Your task to perform on an android device: turn on location history Image 0: 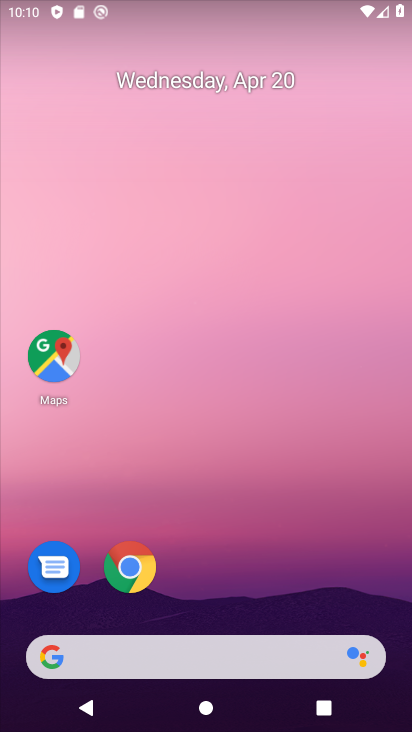
Step 0: drag from (234, 580) to (286, 68)
Your task to perform on an android device: turn on location history Image 1: 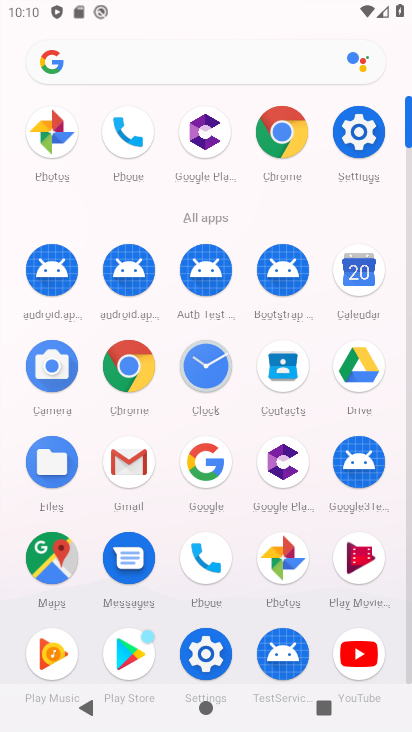
Step 1: click (361, 131)
Your task to perform on an android device: turn on location history Image 2: 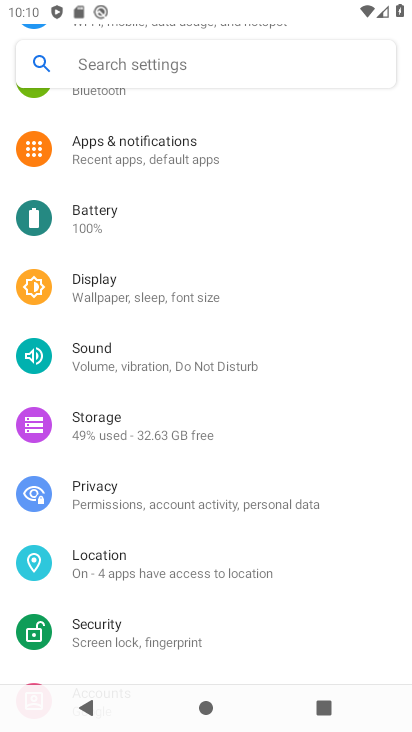
Step 2: click (147, 573)
Your task to perform on an android device: turn on location history Image 3: 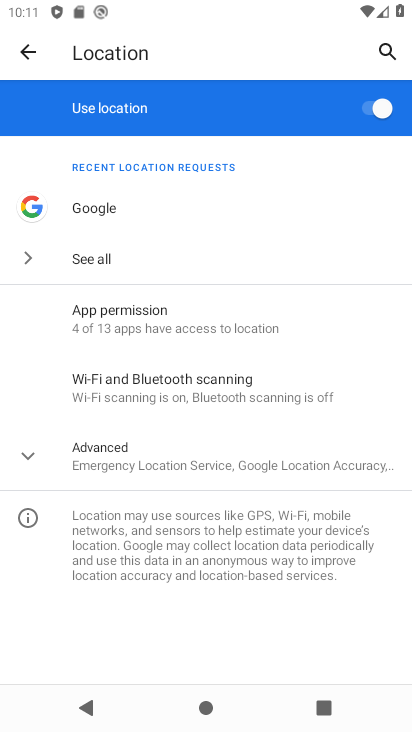
Step 3: click (190, 466)
Your task to perform on an android device: turn on location history Image 4: 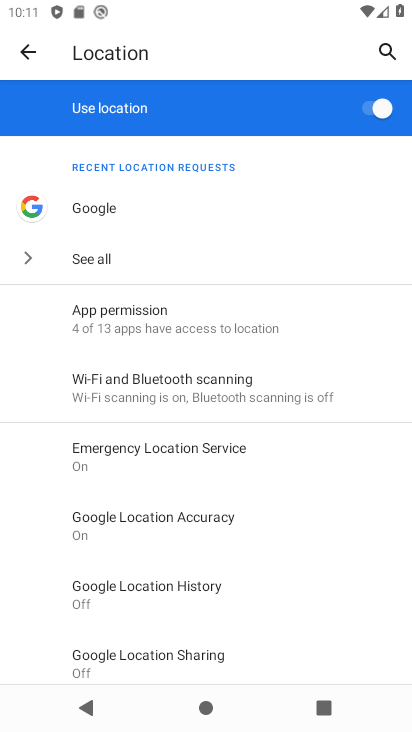
Step 4: drag from (183, 566) to (232, 471)
Your task to perform on an android device: turn on location history Image 5: 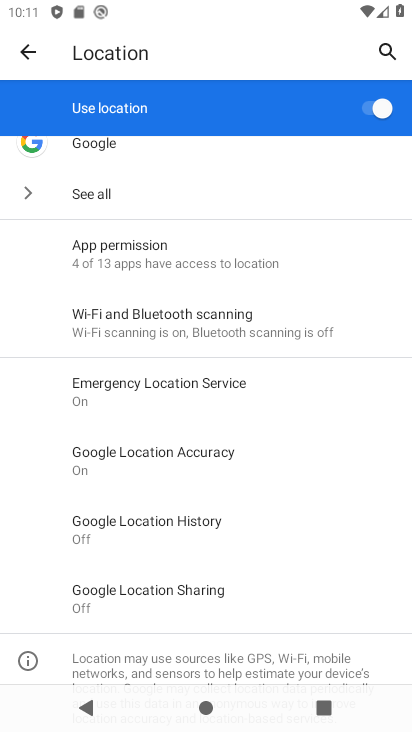
Step 5: click (170, 511)
Your task to perform on an android device: turn on location history Image 6: 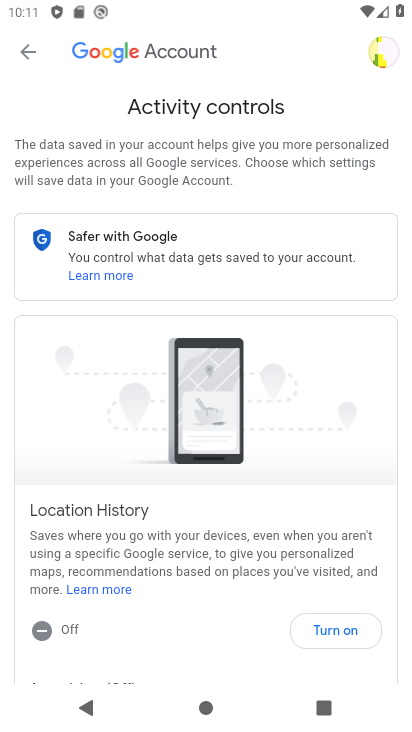
Step 6: click (333, 633)
Your task to perform on an android device: turn on location history Image 7: 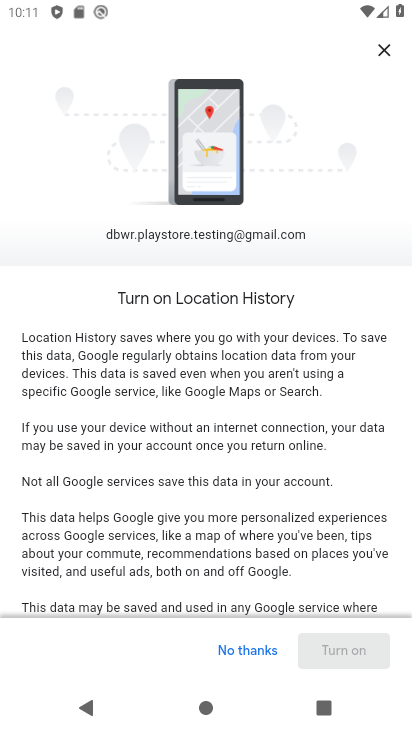
Step 7: task complete